Your task to perform on an android device: open a new tab in the chrome app Image 0: 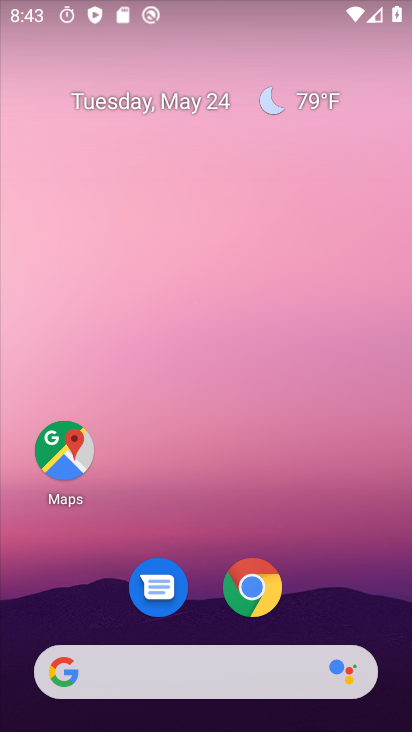
Step 0: click (253, 588)
Your task to perform on an android device: open a new tab in the chrome app Image 1: 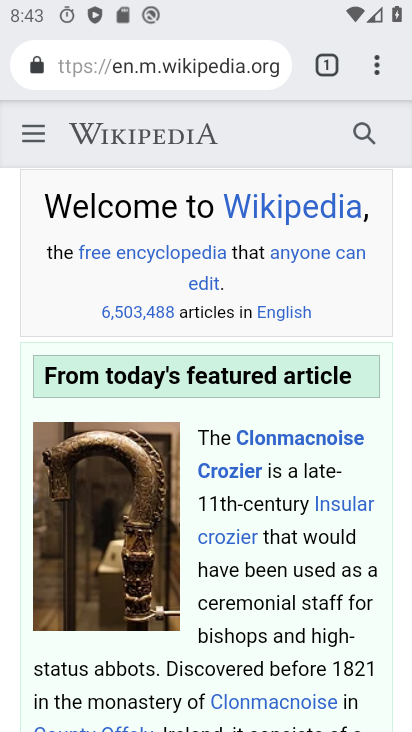
Step 1: click (379, 65)
Your task to perform on an android device: open a new tab in the chrome app Image 2: 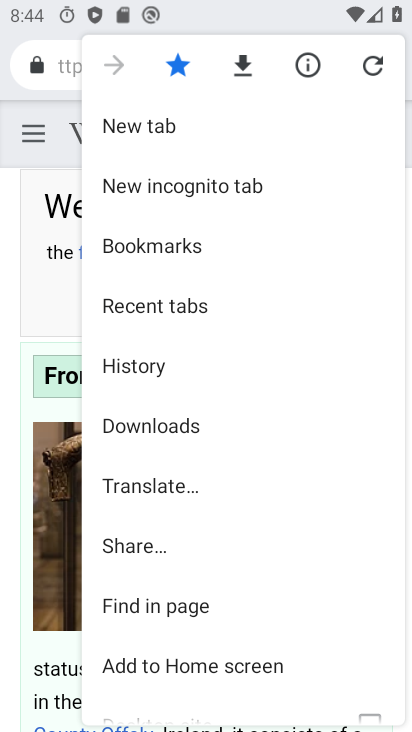
Step 2: click (164, 136)
Your task to perform on an android device: open a new tab in the chrome app Image 3: 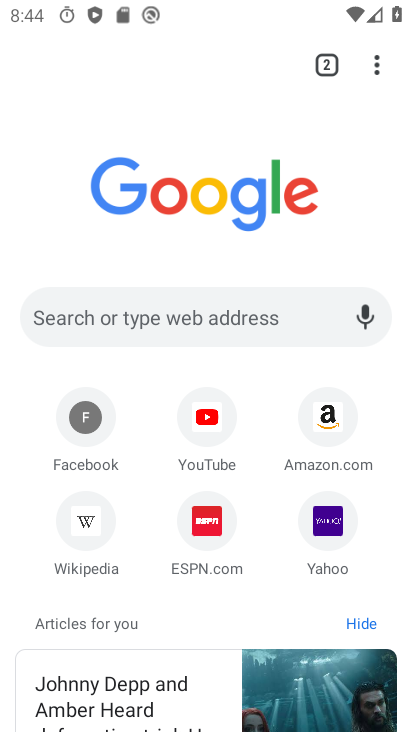
Step 3: task complete